Your task to perform on an android device: Search for vegetarian restaurants on Maps Image 0: 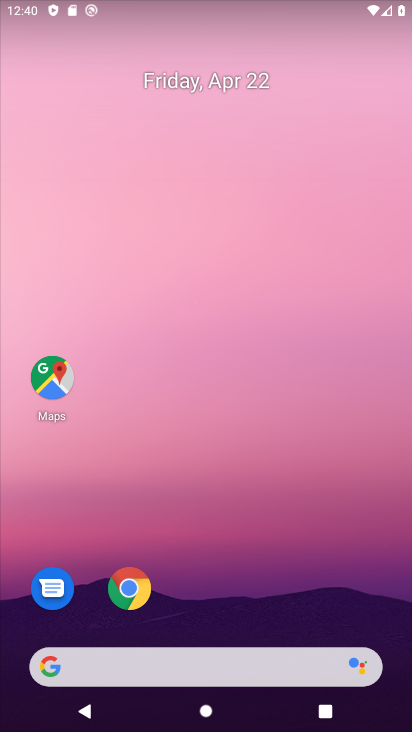
Step 0: drag from (266, 685) to (285, 166)
Your task to perform on an android device: Search for vegetarian restaurants on Maps Image 1: 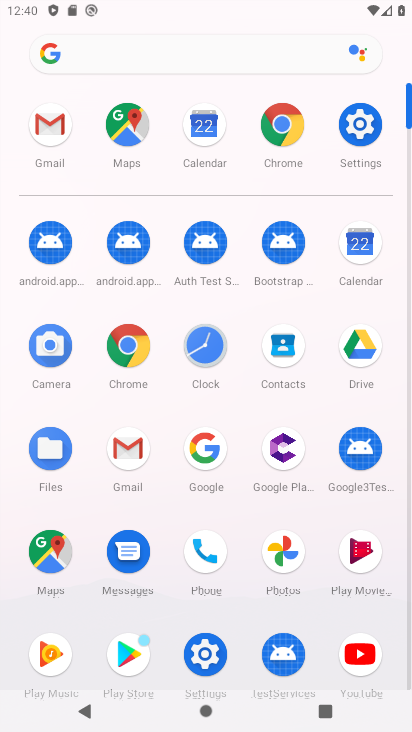
Step 1: click (138, 134)
Your task to perform on an android device: Search for vegetarian restaurants on Maps Image 2: 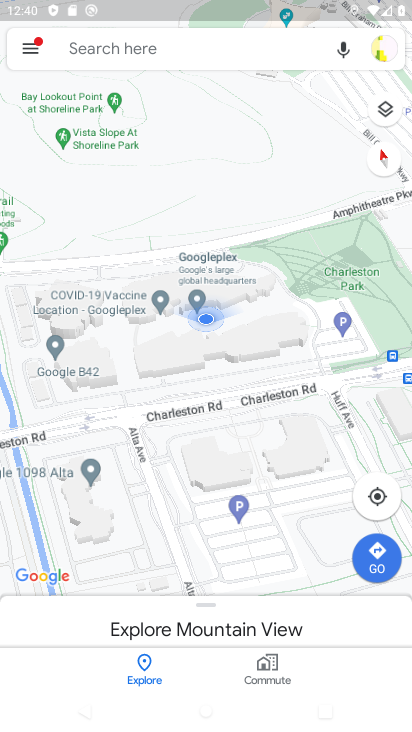
Step 2: click (169, 52)
Your task to perform on an android device: Search for vegetarian restaurants on Maps Image 3: 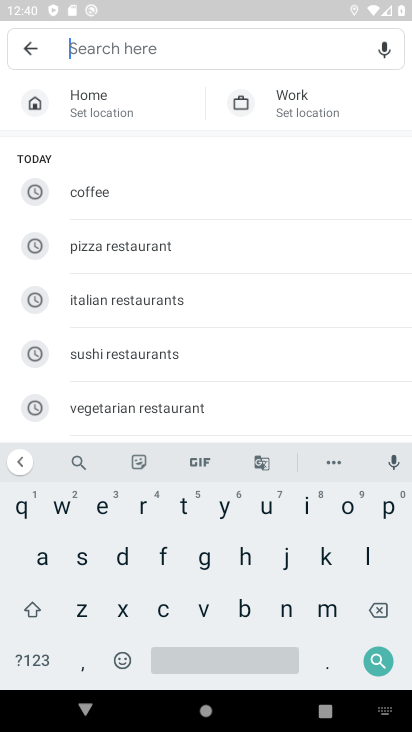
Step 3: click (184, 406)
Your task to perform on an android device: Search for vegetarian restaurants on Maps Image 4: 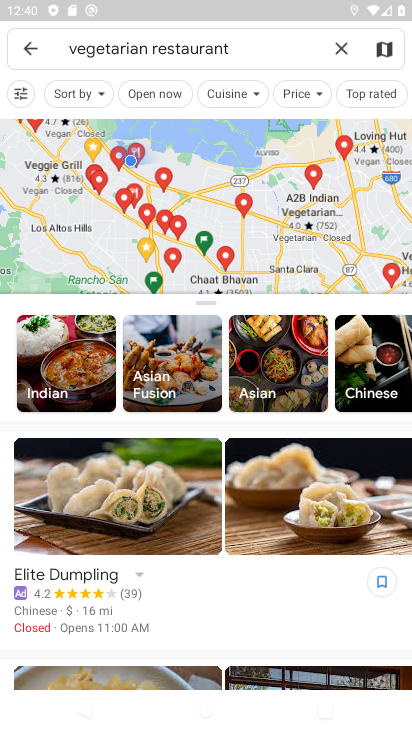
Step 4: click (149, 192)
Your task to perform on an android device: Search for vegetarian restaurants on Maps Image 5: 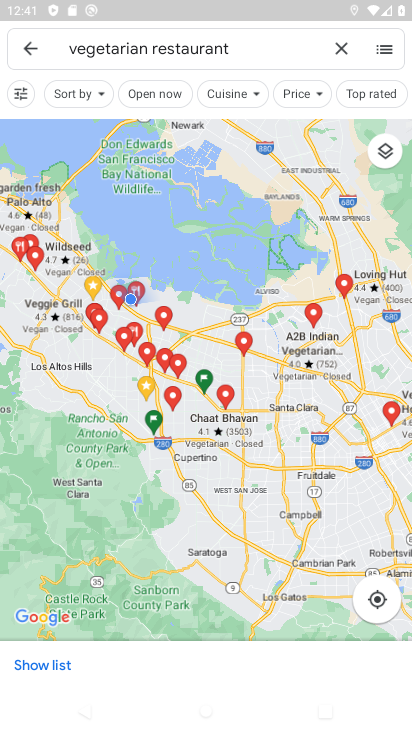
Step 5: click (141, 314)
Your task to perform on an android device: Search for vegetarian restaurants on Maps Image 6: 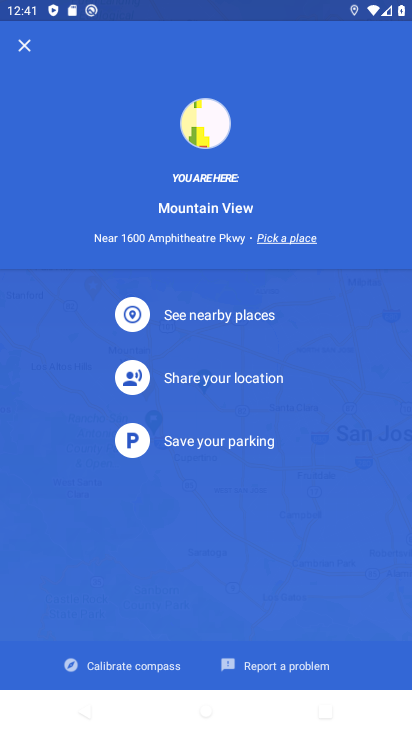
Step 6: click (24, 46)
Your task to perform on an android device: Search for vegetarian restaurants on Maps Image 7: 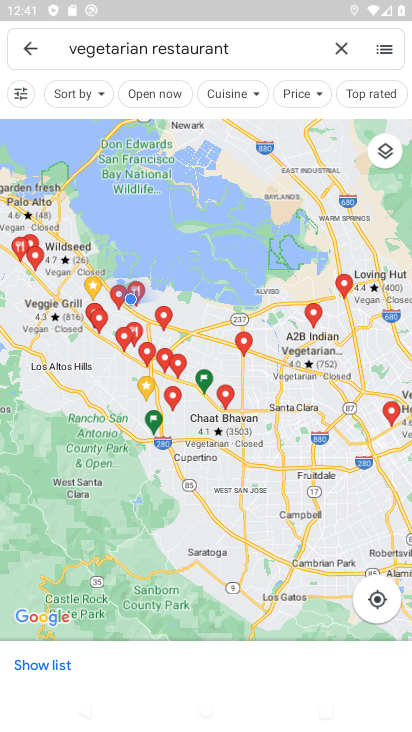
Step 7: task complete